Your task to perform on an android device: toggle wifi Image 0: 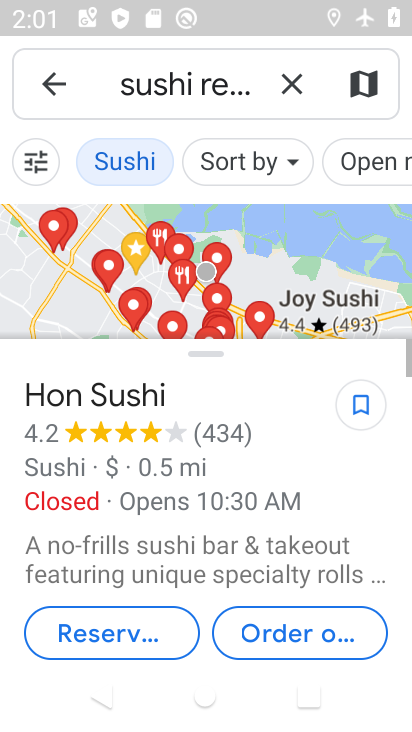
Step 0: drag from (350, 536) to (290, 251)
Your task to perform on an android device: toggle wifi Image 1: 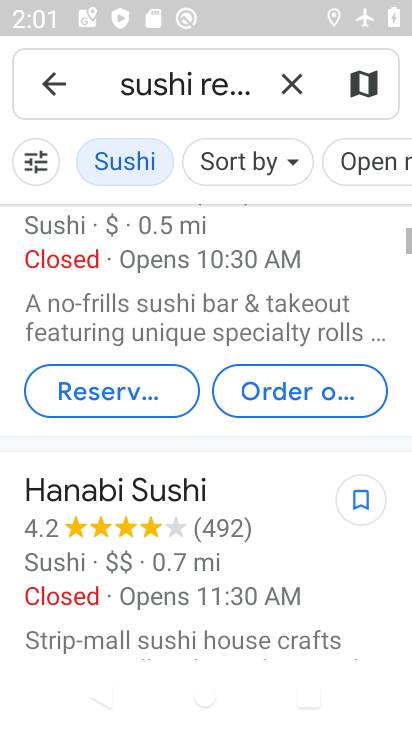
Step 1: press home button
Your task to perform on an android device: toggle wifi Image 2: 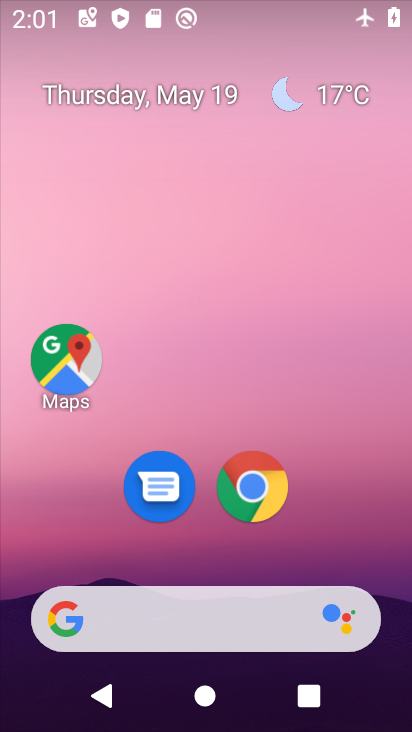
Step 2: drag from (380, 518) to (226, 0)
Your task to perform on an android device: toggle wifi Image 3: 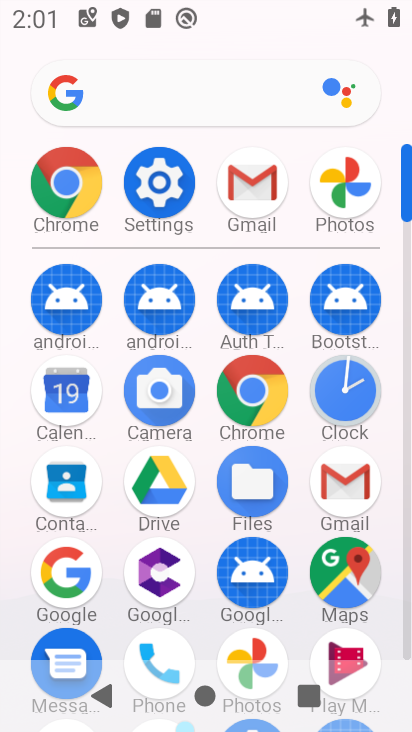
Step 3: click (150, 189)
Your task to perform on an android device: toggle wifi Image 4: 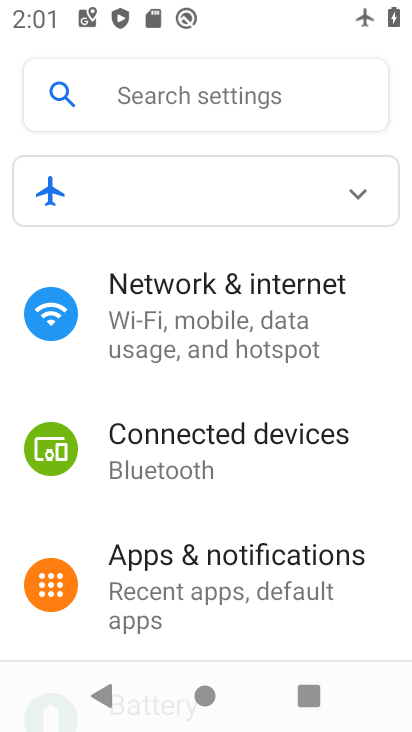
Step 4: click (231, 318)
Your task to perform on an android device: toggle wifi Image 5: 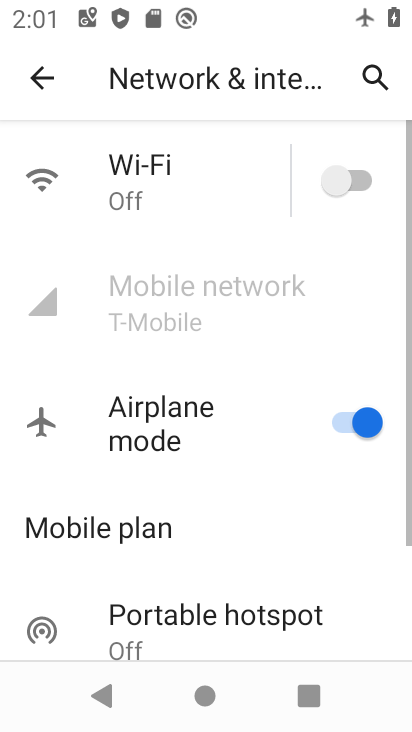
Step 5: click (350, 180)
Your task to perform on an android device: toggle wifi Image 6: 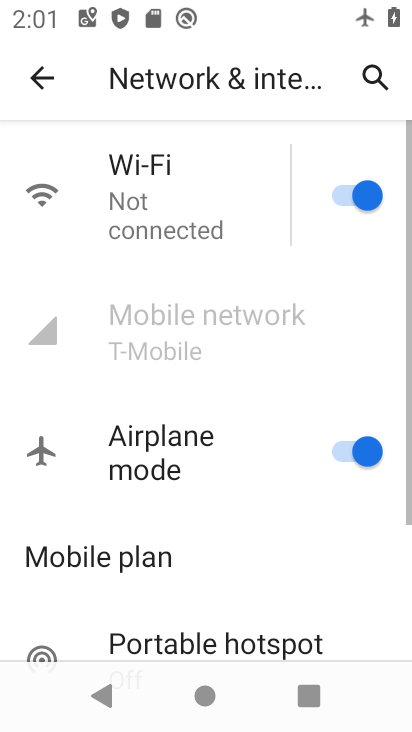
Step 6: task complete